Your task to perform on an android device: Open Chrome and go to settings Image 0: 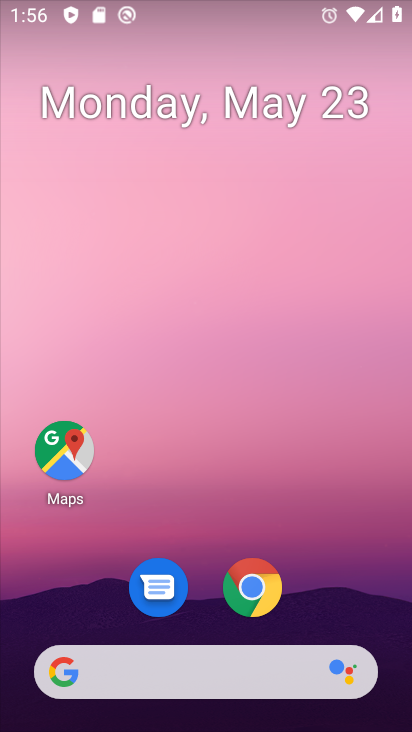
Step 0: click (254, 574)
Your task to perform on an android device: Open Chrome and go to settings Image 1: 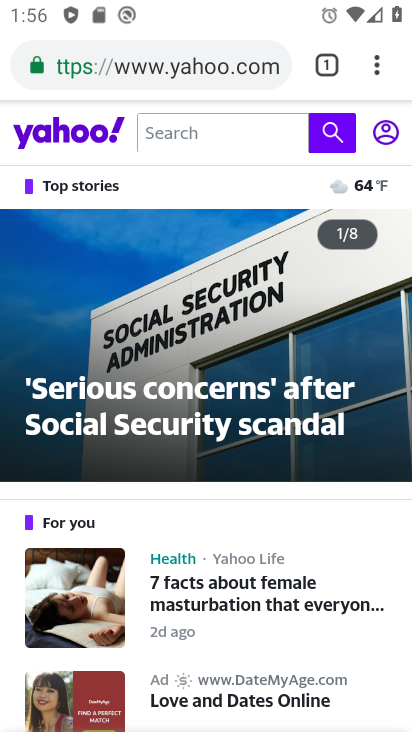
Step 1: click (375, 63)
Your task to perform on an android device: Open Chrome and go to settings Image 2: 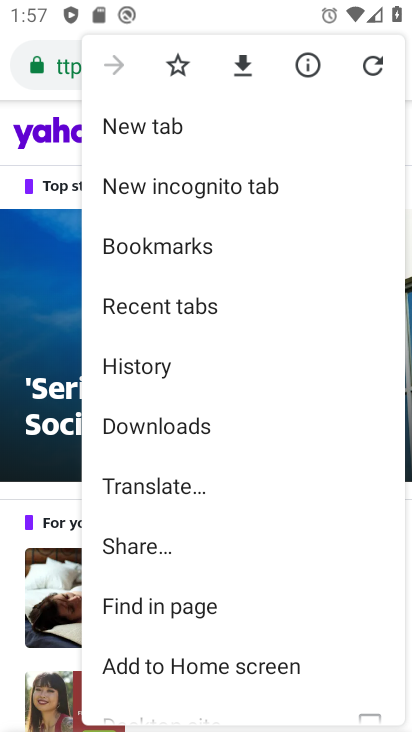
Step 2: drag from (224, 571) to (244, 398)
Your task to perform on an android device: Open Chrome and go to settings Image 3: 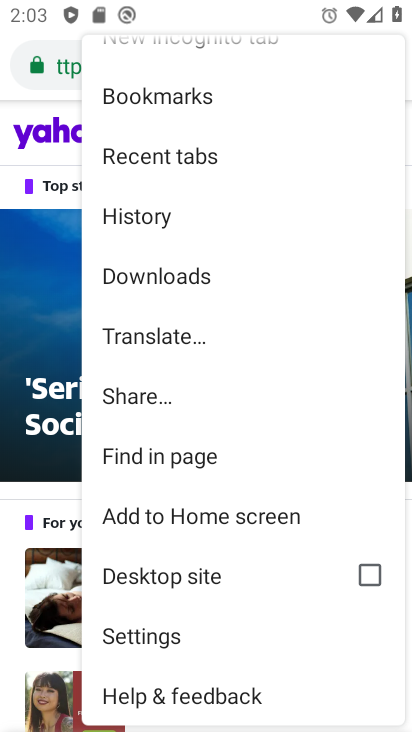
Step 3: click (186, 636)
Your task to perform on an android device: Open Chrome and go to settings Image 4: 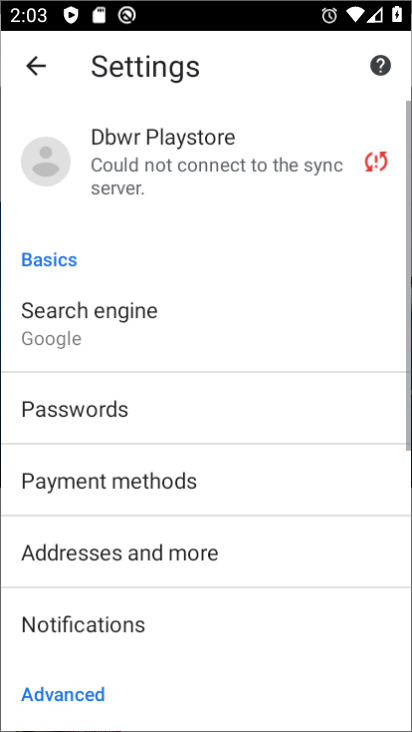
Step 4: task complete